Your task to perform on an android device: Open maps Image 0: 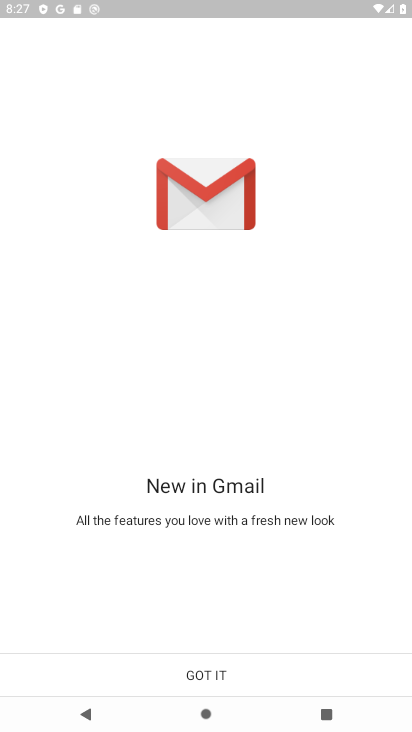
Step 0: press home button
Your task to perform on an android device: Open maps Image 1: 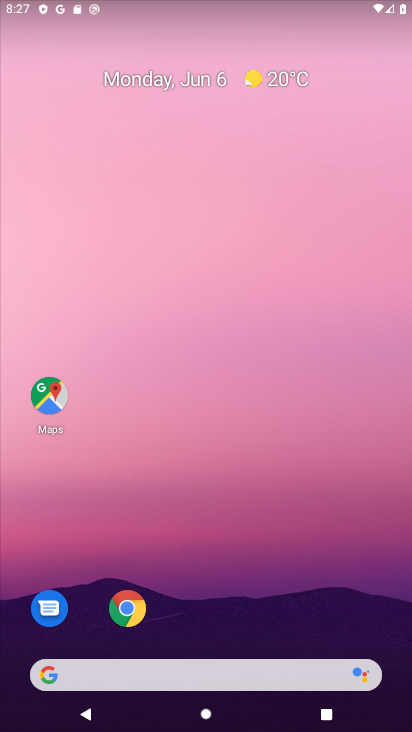
Step 1: click (63, 388)
Your task to perform on an android device: Open maps Image 2: 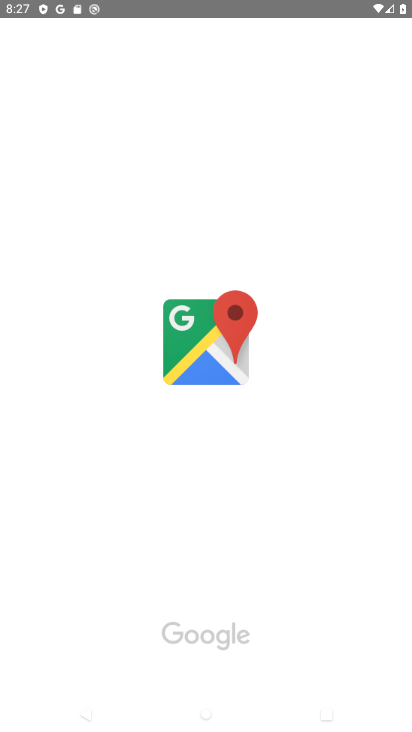
Step 2: task complete